Your task to perform on an android device: Open Chrome and go to settings Image 0: 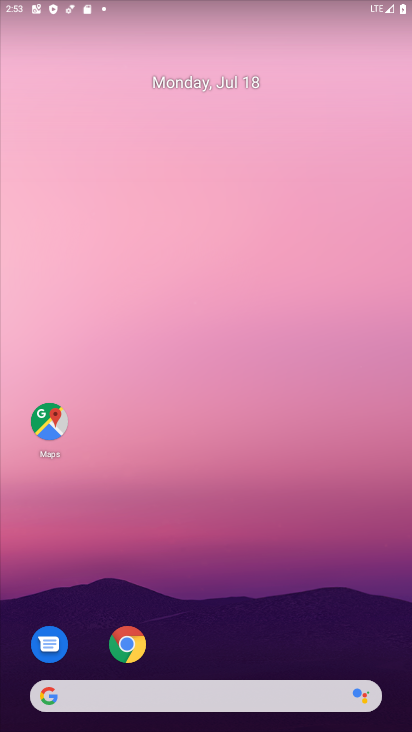
Step 0: click (136, 638)
Your task to perform on an android device: Open Chrome and go to settings Image 1: 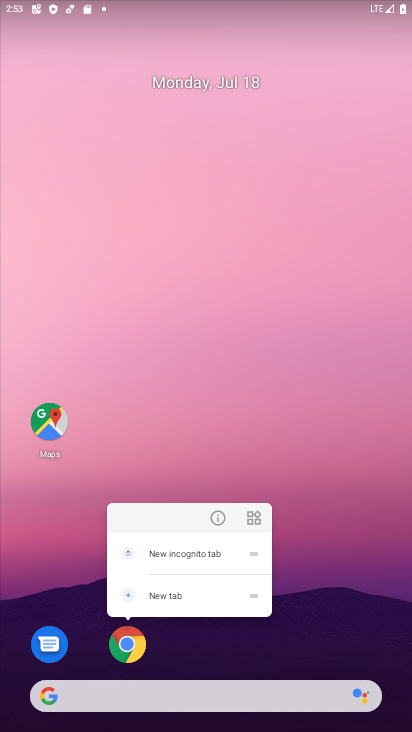
Step 1: click (128, 662)
Your task to perform on an android device: Open Chrome and go to settings Image 2: 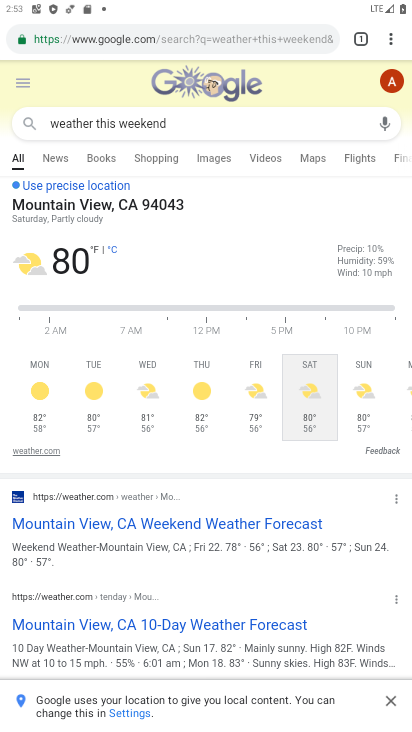
Step 2: task complete